Your task to perform on an android device: set default search engine in the chrome app Image 0: 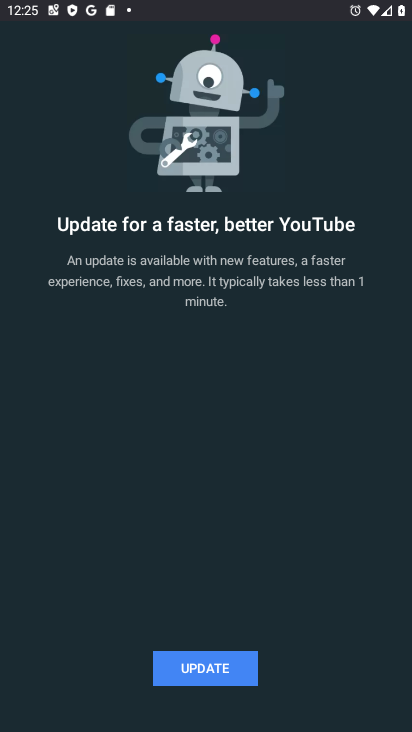
Step 0: press home button
Your task to perform on an android device: set default search engine in the chrome app Image 1: 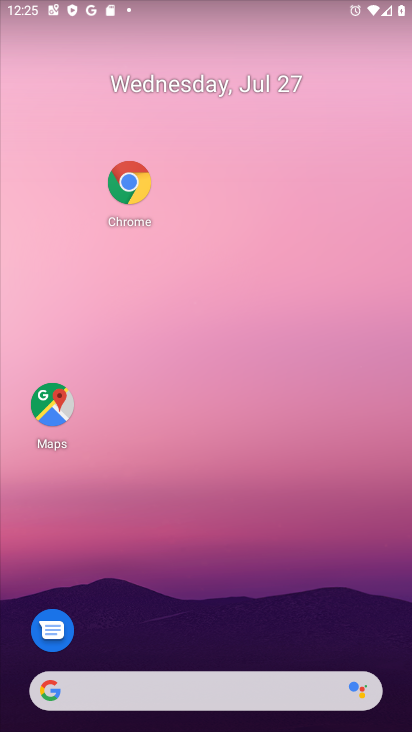
Step 1: click (128, 224)
Your task to perform on an android device: set default search engine in the chrome app Image 2: 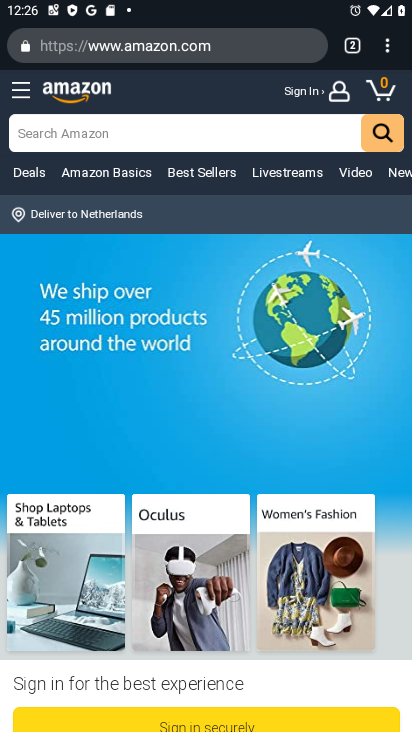
Step 2: click (392, 52)
Your task to perform on an android device: set default search engine in the chrome app Image 3: 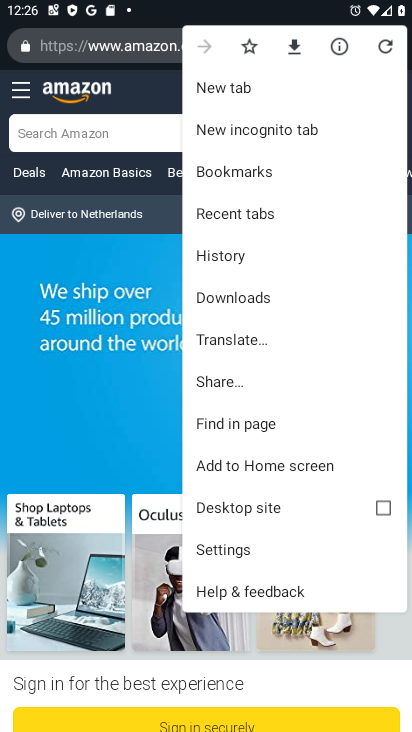
Step 3: click (249, 549)
Your task to perform on an android device: set default search engine in the chrome app Image 4: 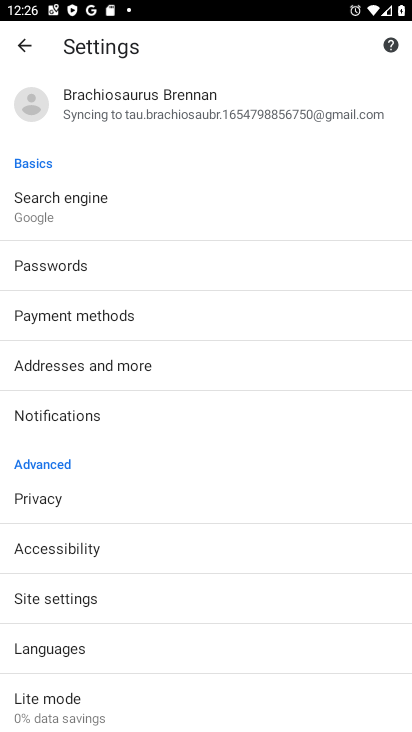
Step 4: click (111, 215)
Your task to perform on an android device: set default search engine in the chrome app Image 5: 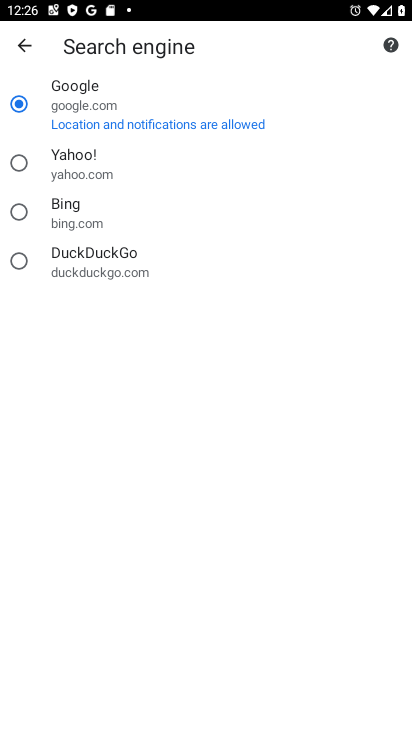
Step 5: task complete